Your task to perform on an android device: What is the news today? Image 0: 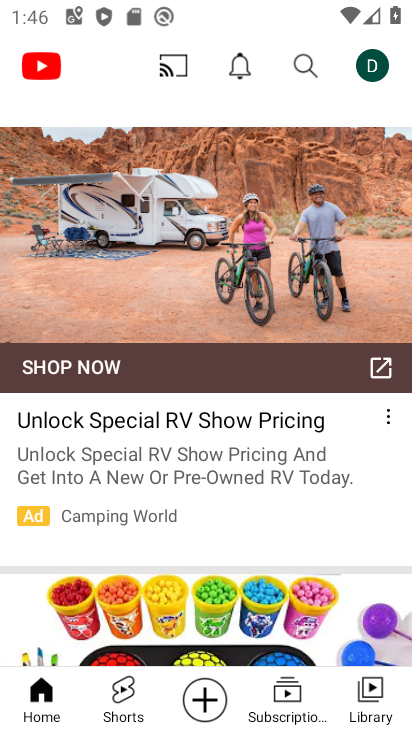
Step 0: press home button
Your task to perform on an android device: What is the news today? Image 1: 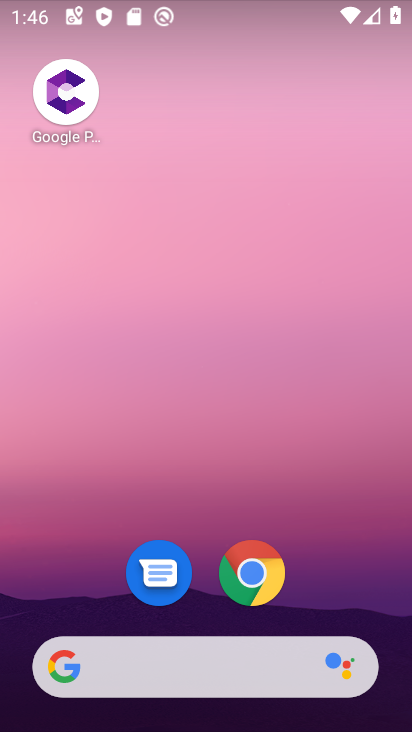
Step 1: task complete